Your task to perform on an android device: turn off sleep mode Image 0: 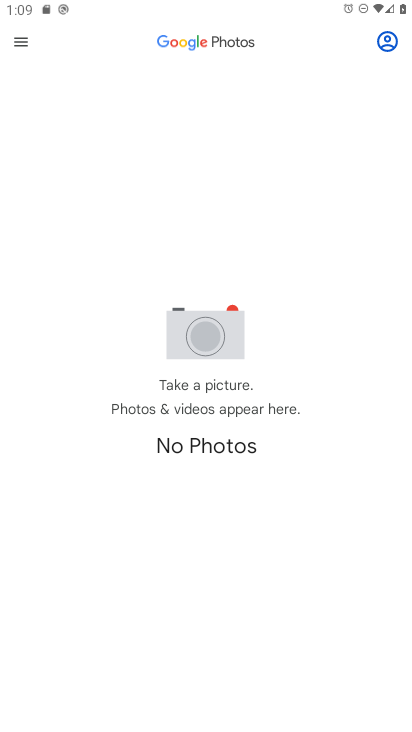
Step 0: press home button
Your task to perform on an android device: turn off sleep mode Image 1: 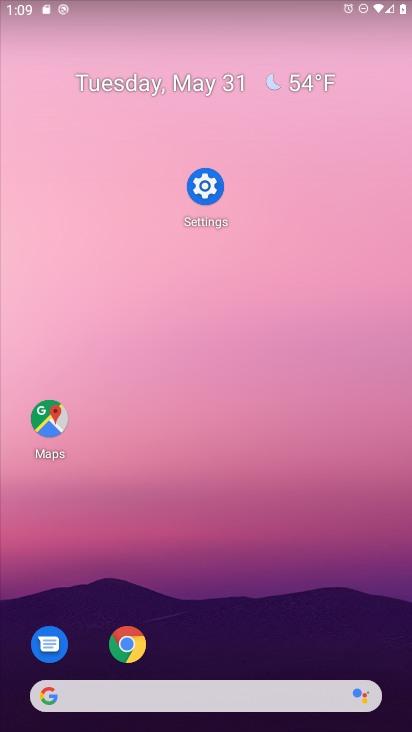
Step 1: drag from (213, 649) to (231, 74)
Your task to perform on an android device: turn off sleep mode Image 2: 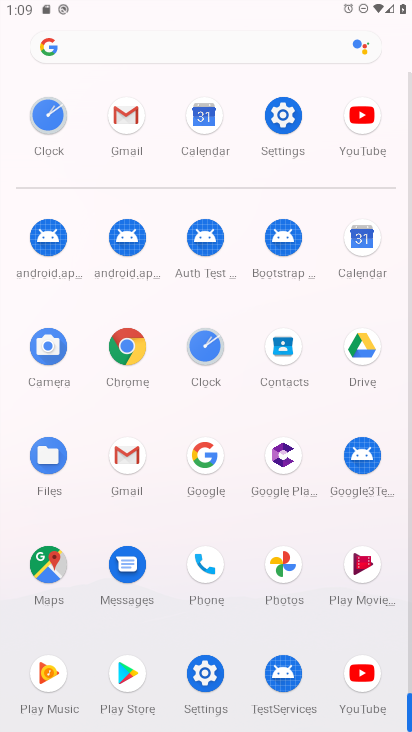
Step 2: click (291, 115)
Your task to perform on an android device: turn off sleep mode Image 3: 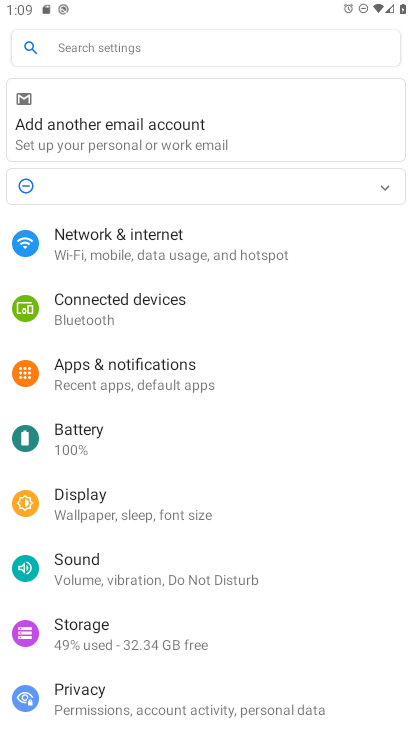
Step 3: click (72, 493)
Your task to perform on an android device: turn off sleep mode Image 4: 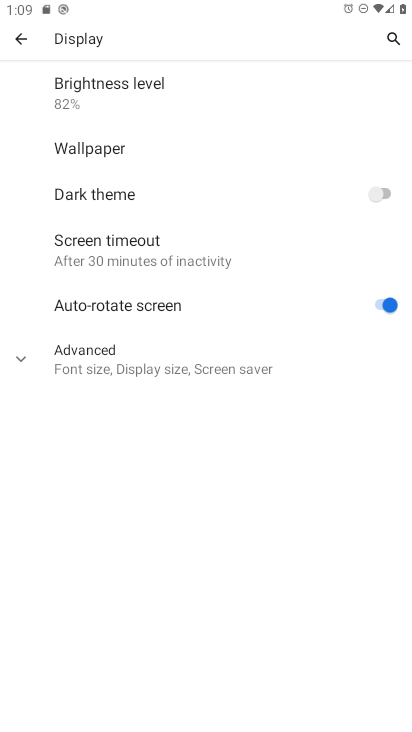
Step 4: task complete